Your task to perform on an android device: empty trash in google photos Image 0: 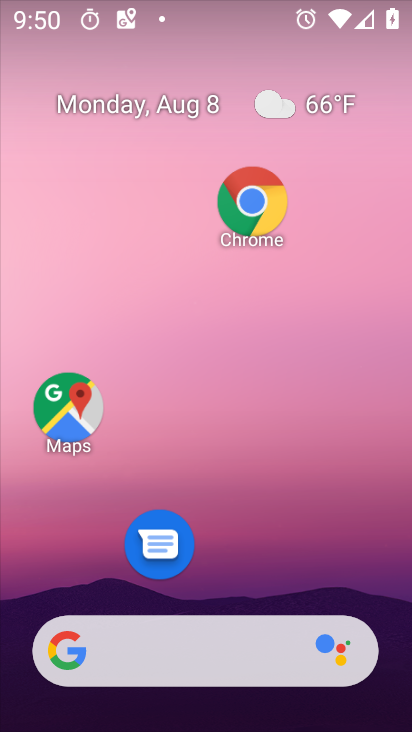
Step 0: drag from (241, 529) to (278, 107)
Your task to perform on an android device: empty trash in google photos Image 1: 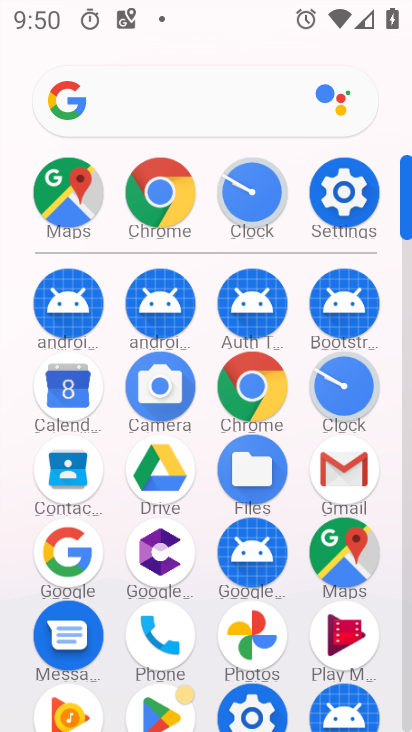
Step 1: click (248, 626)
Your task to perform on an android device: empty trash in google photos Image 2: 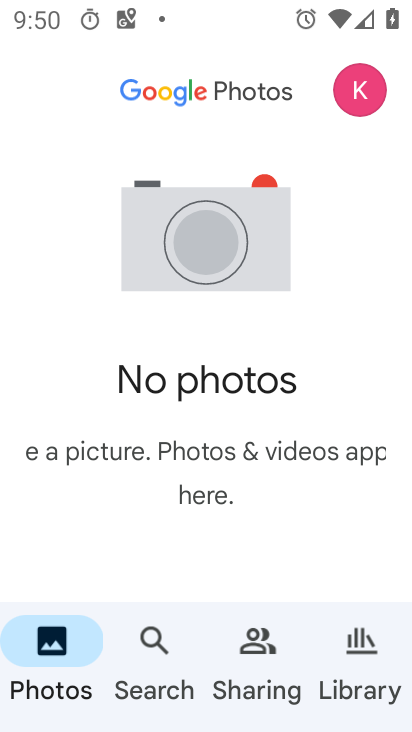
Step 2: click (369, 633)
Your task to perform on an android device: empty trash in google photos Image 3: 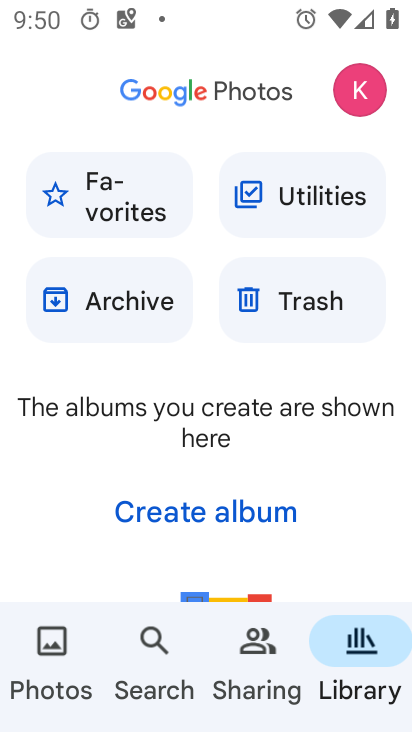
Step 3: click (300, 299)
Your task to perform on an android device: empty trash in google photos Image 4: 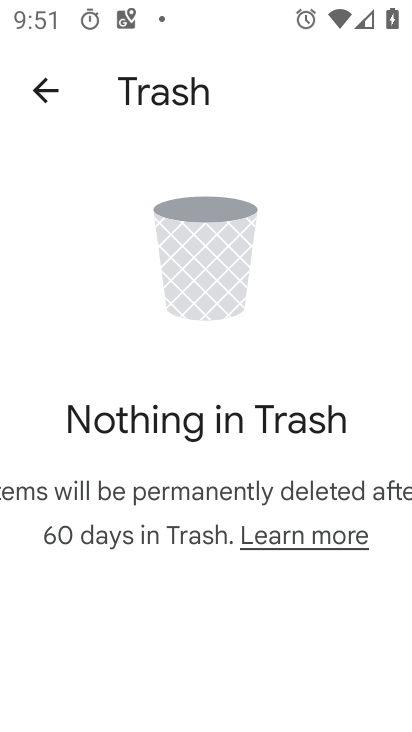
Step 4: task complete